Your task to perform on an android device: allow notifications from all sites in the chrome app Image 0: 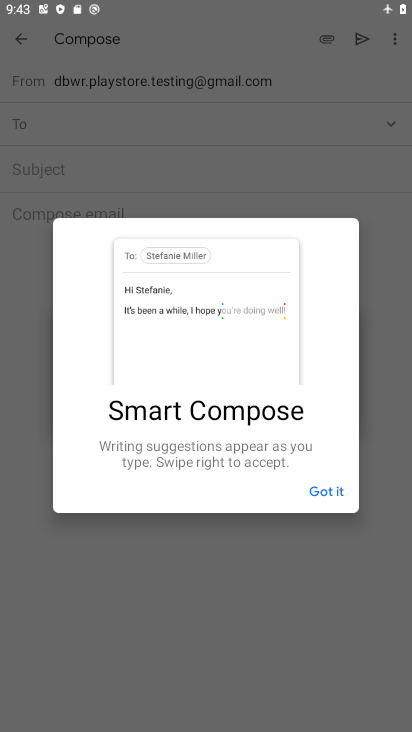
Step 0: press home button
Your task to perform on an android device: allow notifications from all sites in the chrome app Image 1: 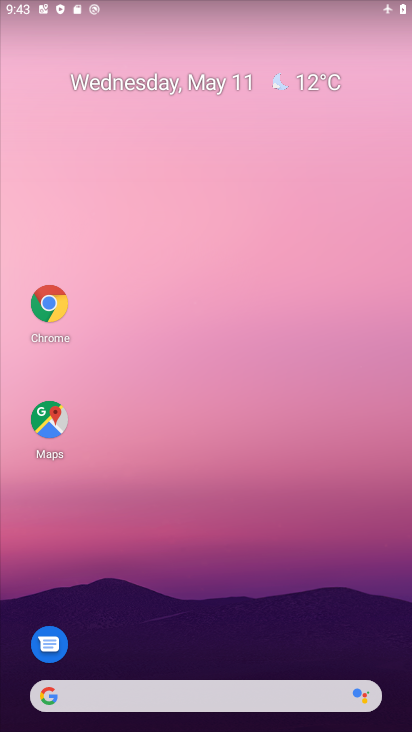
Step 1: click (52, 301)
Your task to perform on an android device: allow notifications from all sites in the chrome app Image 2: 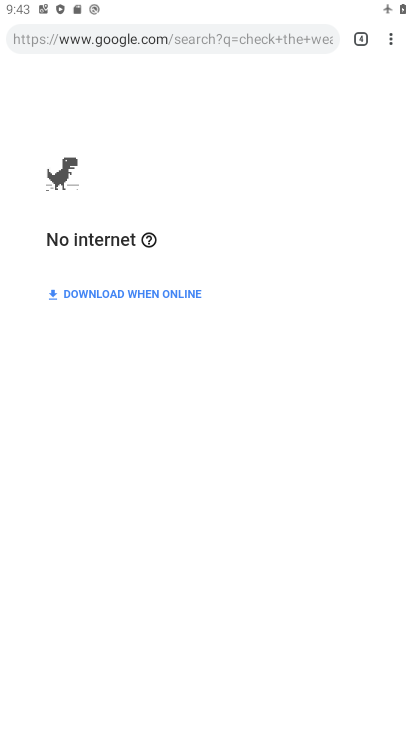
Step 2: click (393, 41)
Your task to perform on an android device: allow notifications from all sites in the chrome app Image 3: 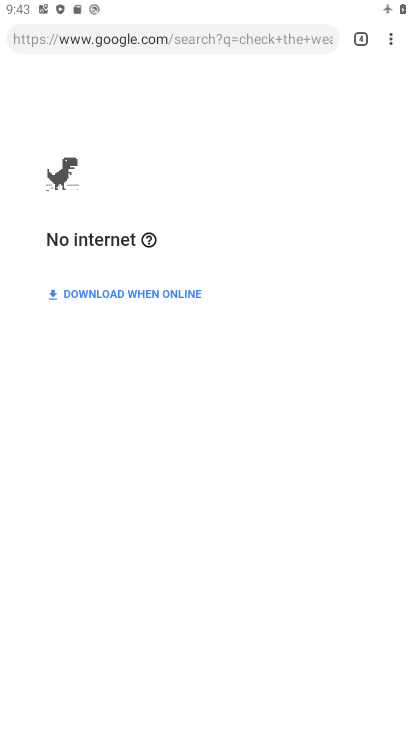
Step 3: click (393, 41)
Your task to perform on an android device: allow notifications from all sites in the chrome app Image 4: 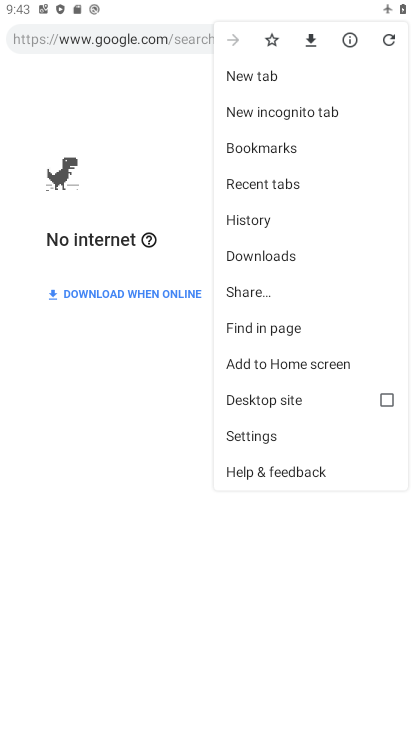
Step 4: click (240, 430)
Your task to perform on an android device: allow notifications from all sites in the chrome app Image 5: 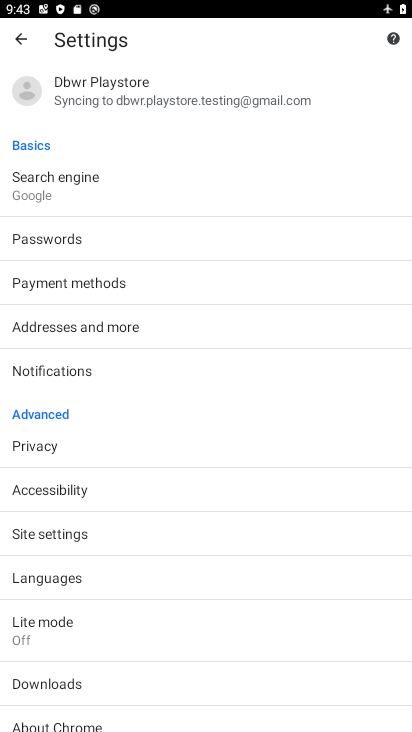
Step 5: click (71, 373)
Your task to perform on an android device: allow notifications from all sites in the chrome app Image 6: 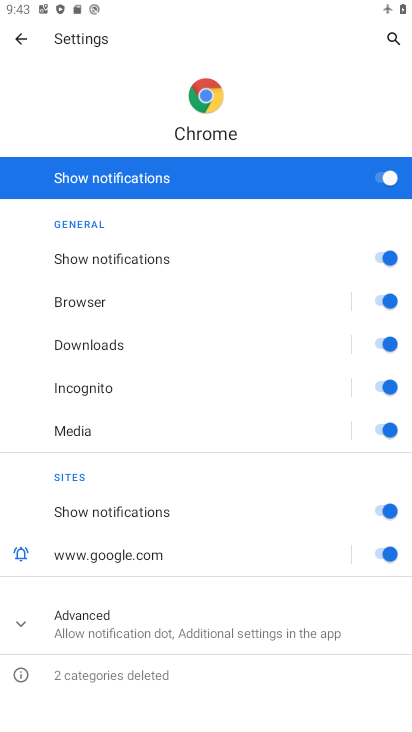
Step 6: task complete